Your task to perform on an android device: Open Google Maps and go to "Timeline" Image 0: 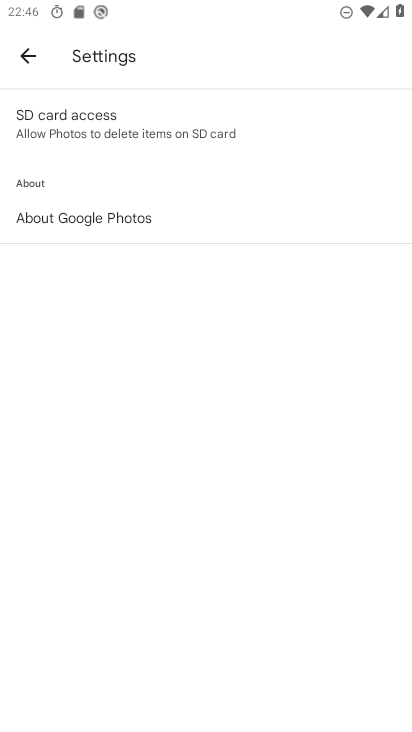
Step 0: press home button
Your task to perform on an android device: Open Google Maps and go to "Timeline" Image 1: 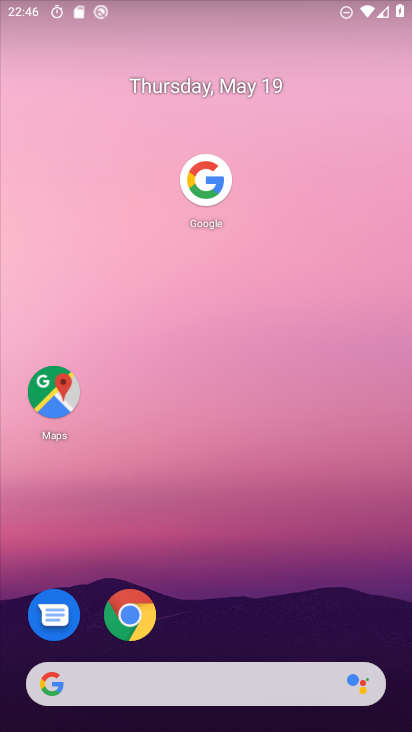
Step 1: click (41, 400)
Your task to perform on an android device: Open Google Maps and go to "Timeline" Image 2: 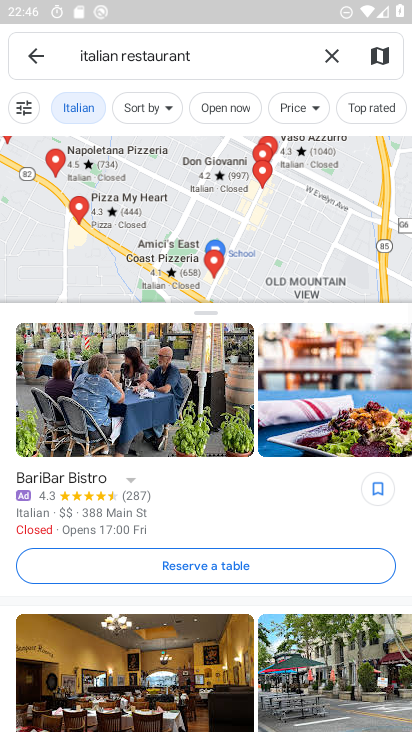
Step 2: click (330, 53)
Your task to perform on an android device: Open Google Maps and go to "Timeline" Image 3: 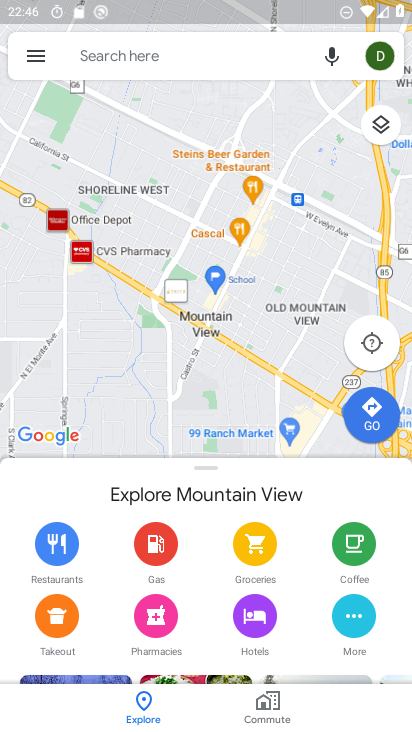
Step 3: click (36, 58)
Your task to perform on an android device: Open Google Maps and go to "Timeline" Image 4: 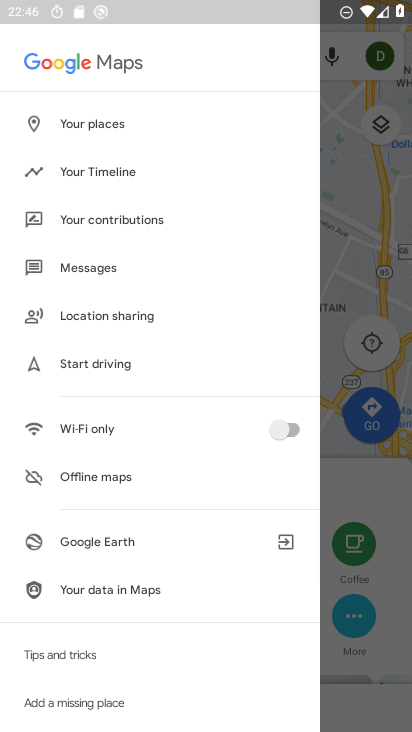
Step 4: click (109, 175)
Your task to perform on an android device: Open Google Maps and go to "Timeline" Image 5: 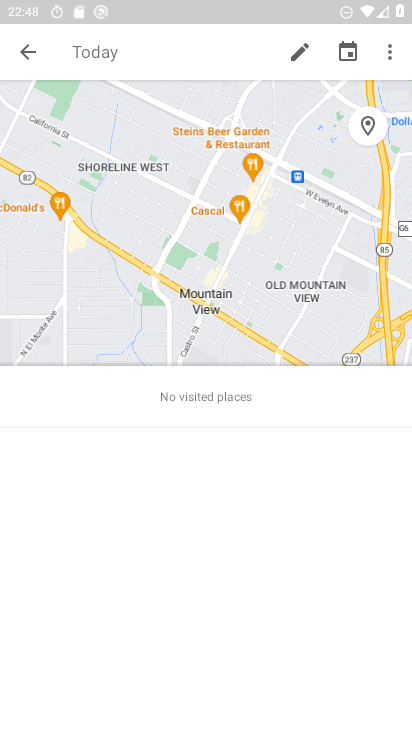
Step 5: task complete